Your task to perform on an android device: Open notification settings Image 0: 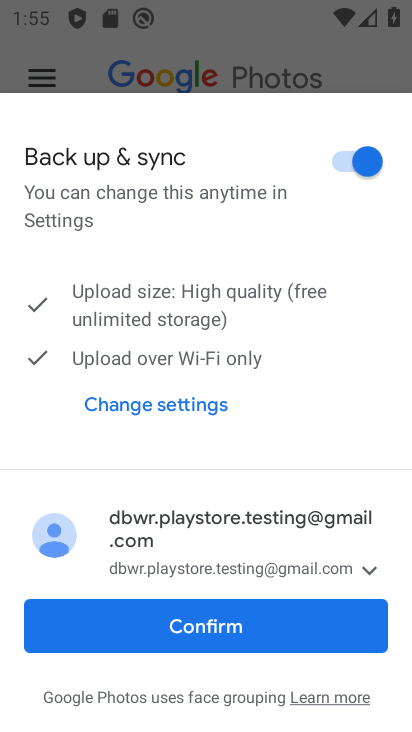
Step 0: press home button
Your task to perform on an android device: Open notification settings Image 1: 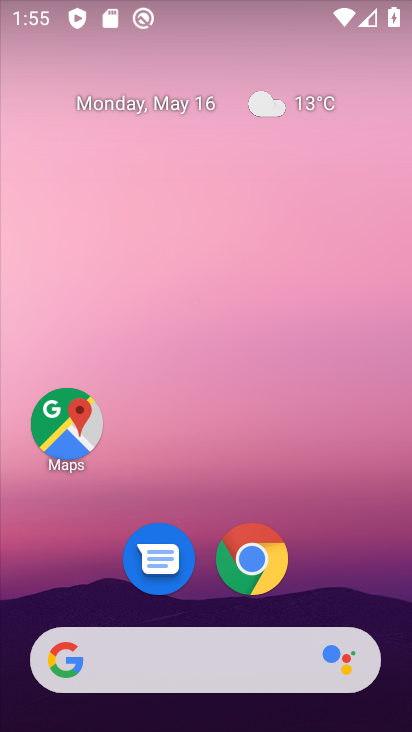
Step 1: drag from (196, 589) to (214, 167)
Your task to perform on an android device: Open notification settings Image 2: 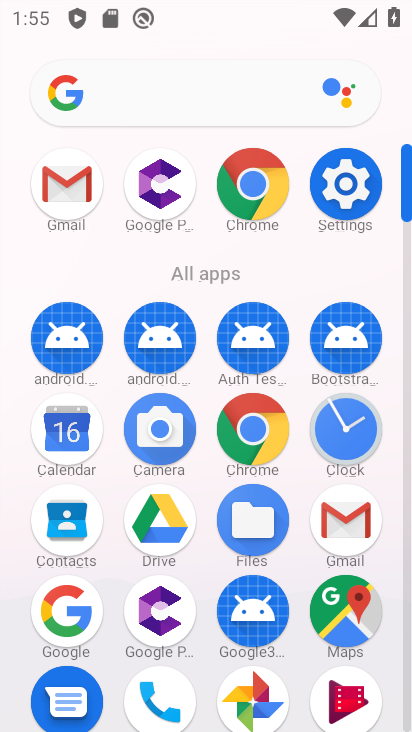
Step 2: click (340, 179)
Your task to perform on an android device: Open notification settings Image 3: 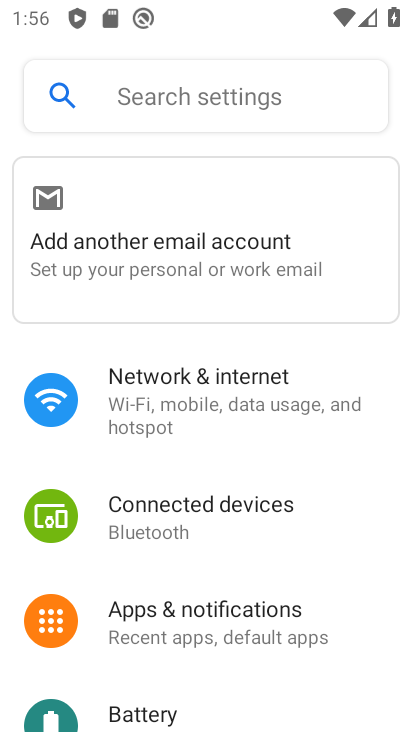
Step 3: click (200, 615)
Your task to perform on an android device: Open notification settings Image 4: 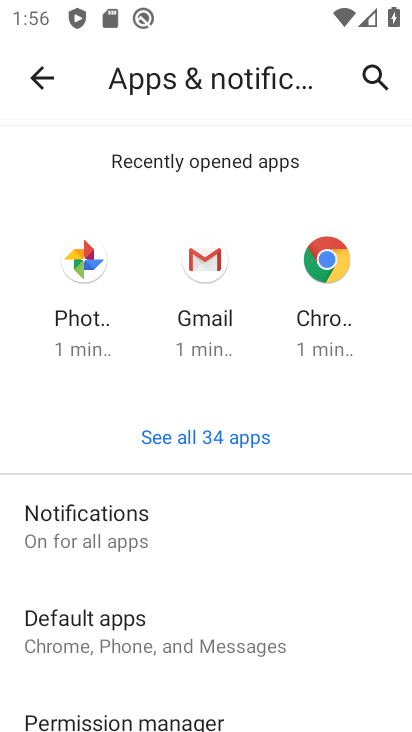
Step 4: task complete